Your task to perform on an android device: Open Chrome and go to the settings page Image 0: 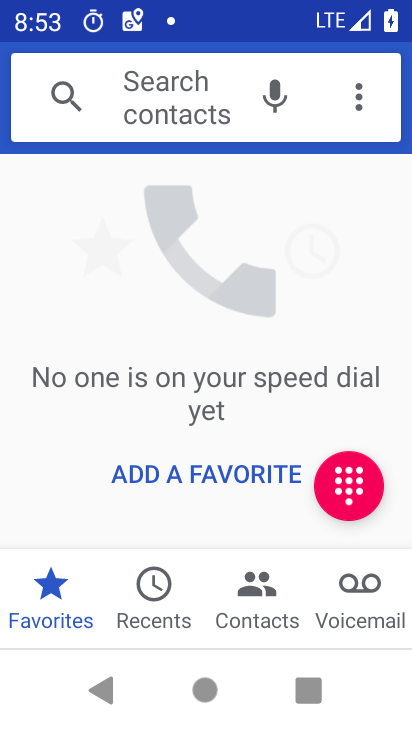
Step 0: press home button
Your task to perform on an android device: Open Chrome and go to the settings page Image 1: 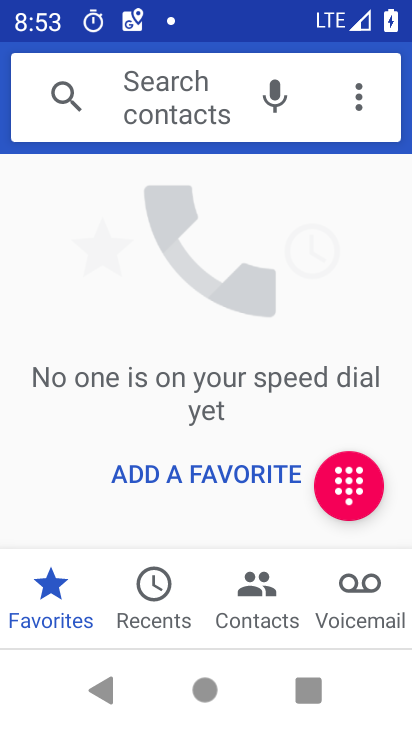
Step 1: press home button
Your task to perform on an android device: Open Chrome and go to the settings page Image 2: 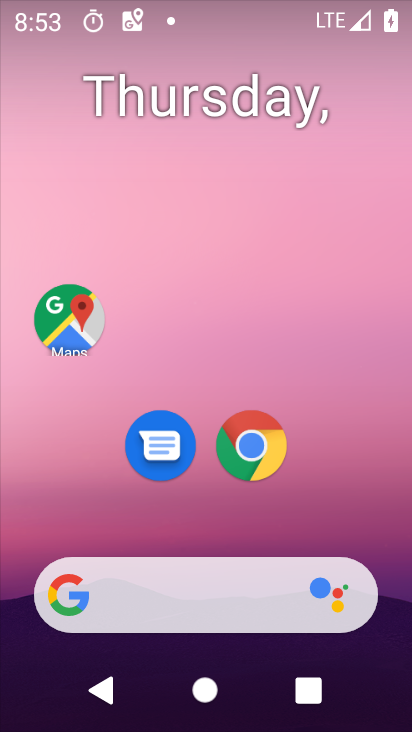
Step 2: drag from (221, 560) to (251, 39)
Your task to perform on an android device: Open Chrome and go to the settings page Image 3: 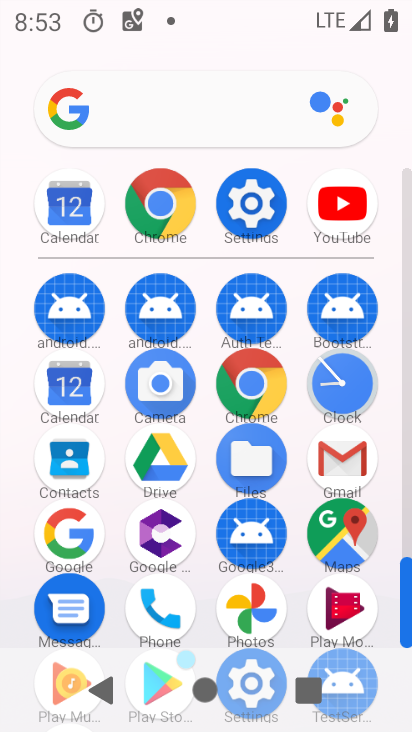
Step 3: click (251, 383)
Your task to perform on an android device: Open Chrome and go to the settings page Image 4: 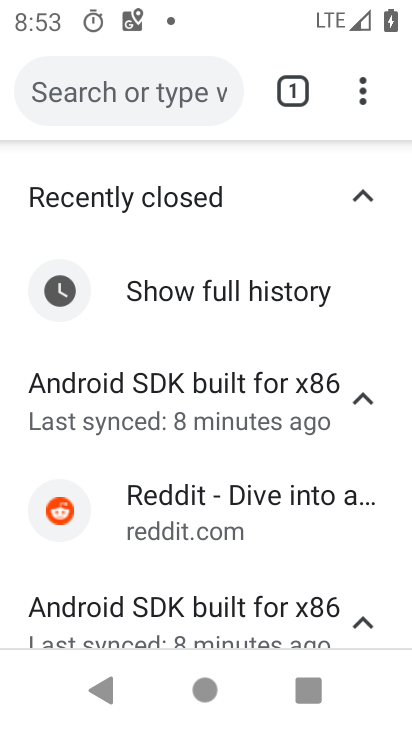
Step 4: task complete